Your task to perform on an android device: turn pop-ups off in chrome Image 0: 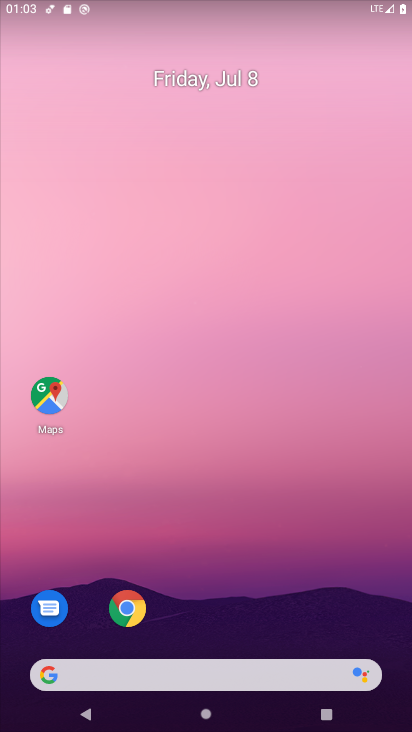
Step 0: drag from (242, 620) to (281, 184)
Your task to perform on an android device: turn pop-ups off in chrome Image 1: 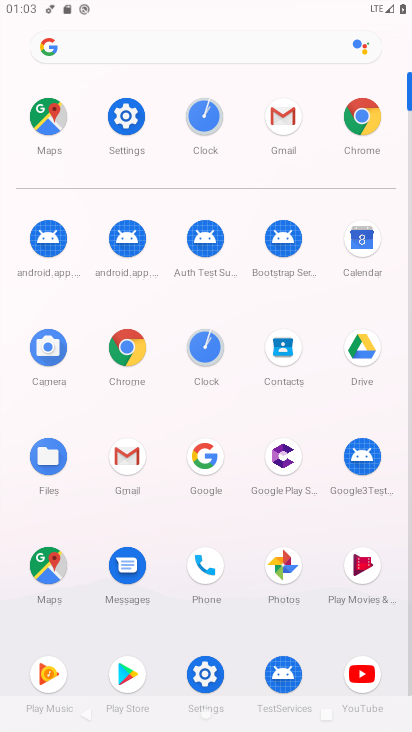
Step 1: click (358, 112)
Your task to perform on an android device: turn pop-ups off in chrome Image 2: 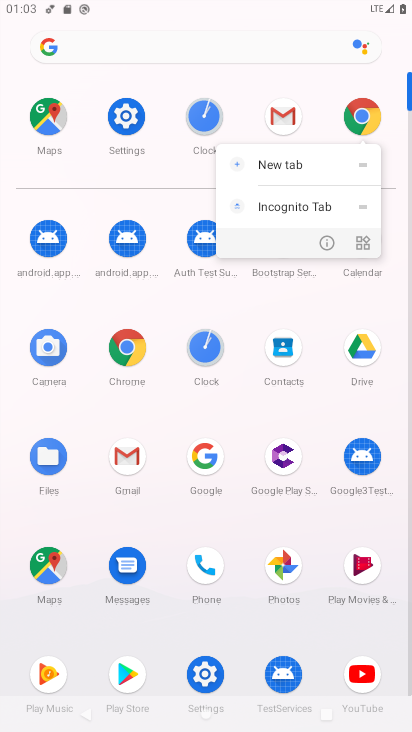
Step 2: click (287, 103)
Your task to perform on an android device: turn pop-ups off in chrome Image 3: 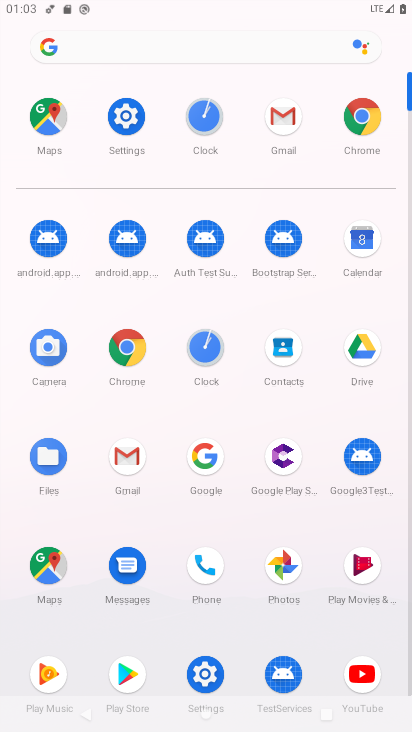
Step 3: click (120, 103)
Your task to perform on an android device: turn pop-ups off in chrome Image 4: 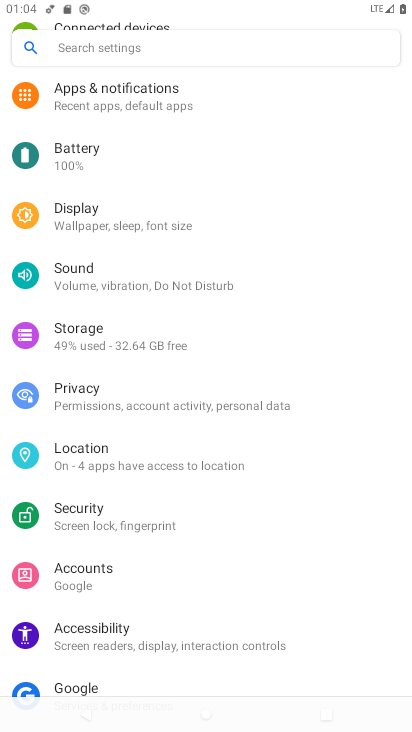
Step 4: press home button
Your task to perform on an android device: turn pop-ups off in chrome Image 5: 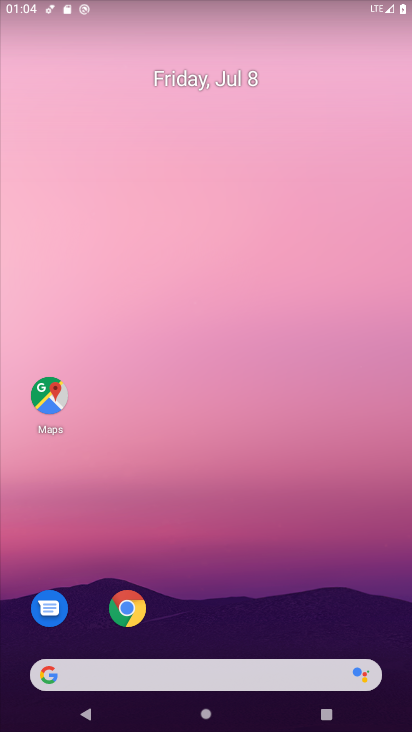
Step 5: drag from (214, 569) to (235, 473)
Your task to perform on an android device: turn pop-ups off in chrome Image 6: 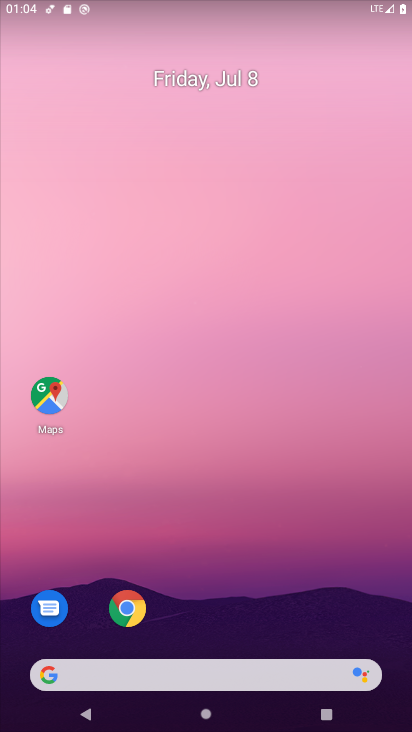
Step 6: drag from (206, 565) to (241, 268)
Your task to perform on an android device: turn pop-ups off in chrome Image 7: 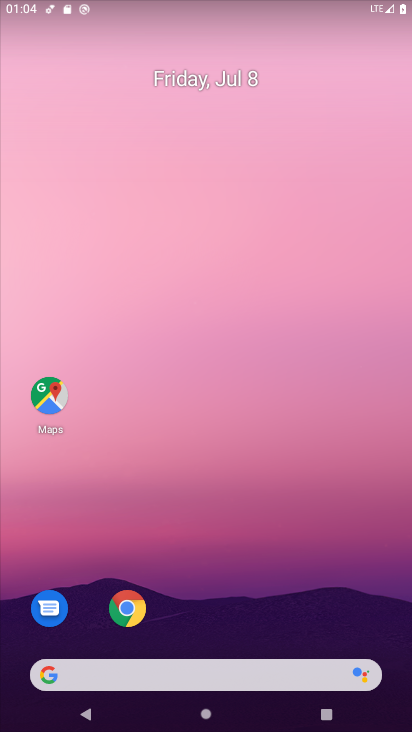
Step 7: click (118, 592)
Your task to perform on an android device: turn pop-ups off in chrome Image 8: 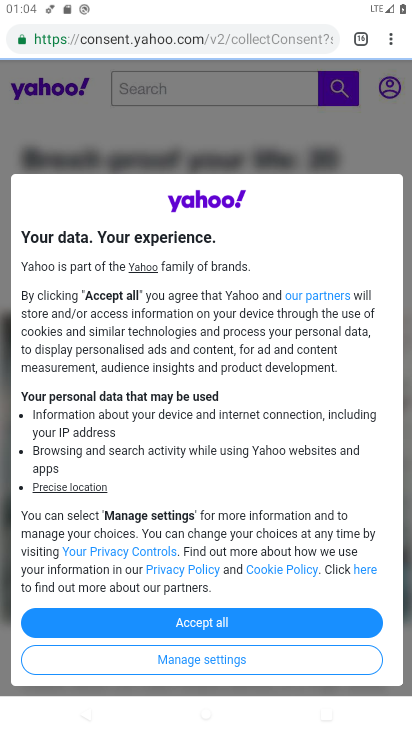
Step 8: click (388, 29)
Your task to perform on an android device: turn pop-ups off in chrome Image 9: 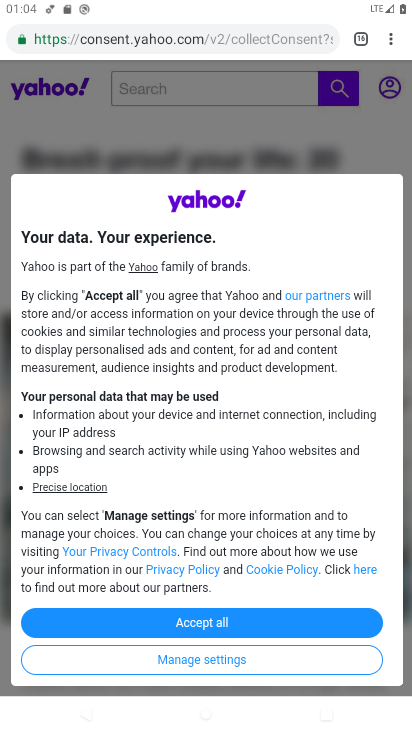
Step 9: click (400, 32)
Your task to perform on an android device: turn pop-ups off in chrome Image 10: 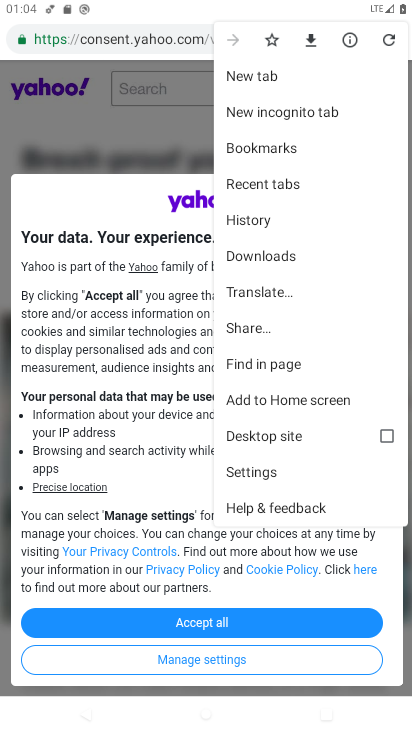
Step 10: click (256, 473)
Your task to perform on an android device: turn pop-ups off in chrome Image 11: 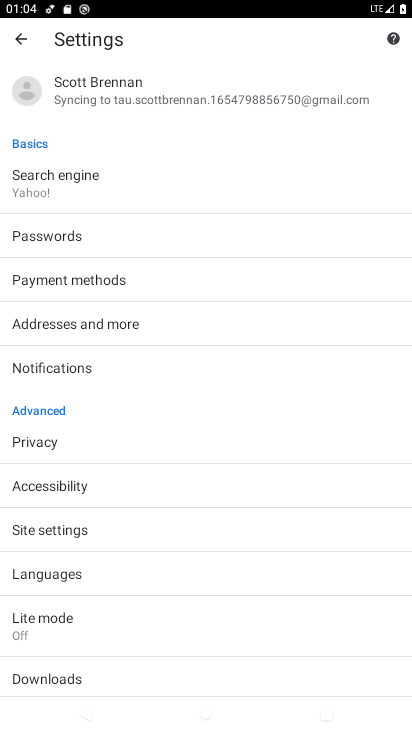
Step 11: click (99, 522)
Your task to perform on an android device: turn pop-ups off in chrome Image 12: 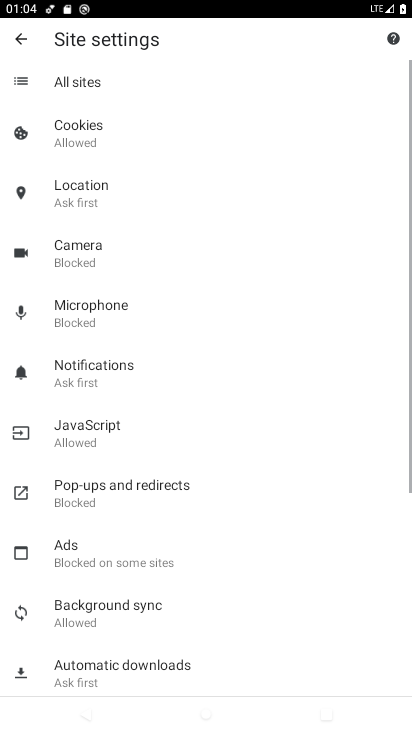
Step 12: click (129, 479)
Your task to perform on an android device: turn pop-ups off in chrome Image 13: 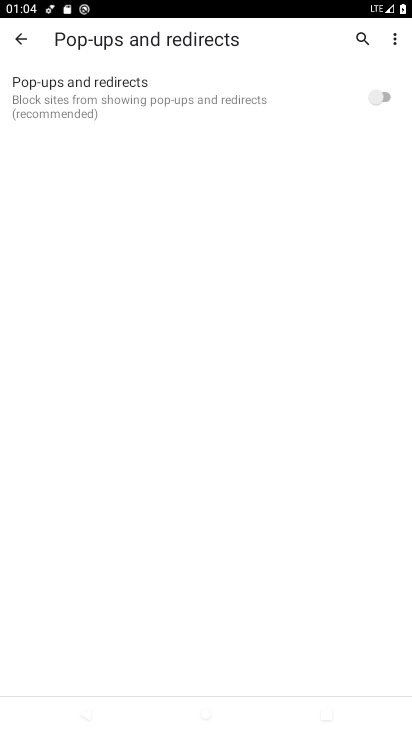
Step 13: task complete